Your task to perform on an android device: turn notification dots off Image 0: 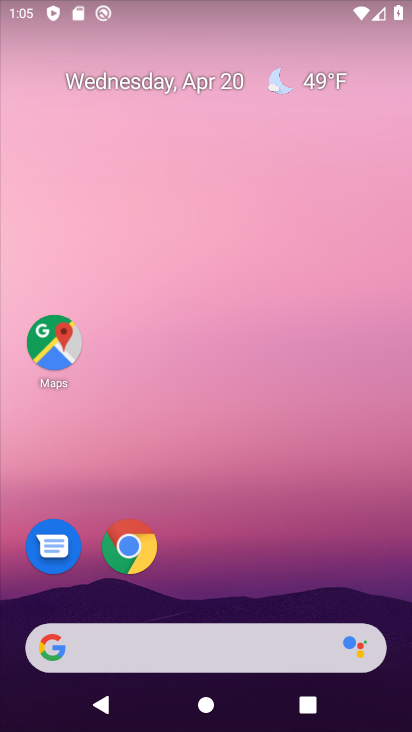
Step 0: drag from (224, 553) to (277, 110)
Your task to perform on an android device: turn notification dots off Image 1: 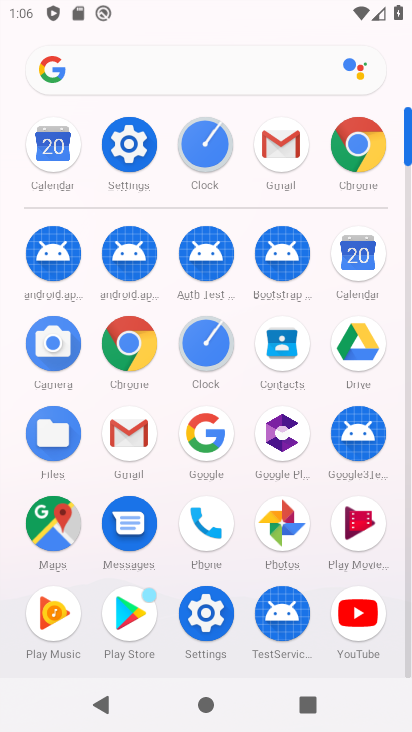
Step 1: click (133, 140)
Your task to perform on an android device: turn notification dots off Image 2: 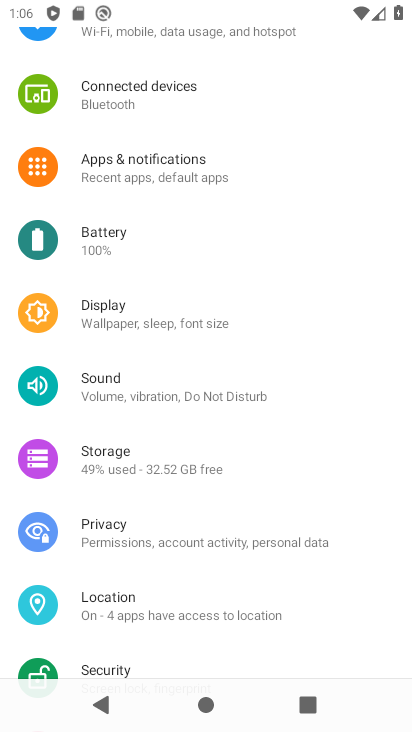
Step 2: click (226, 161)
Your task to perform on an android device: turn notification dots off Image 3: 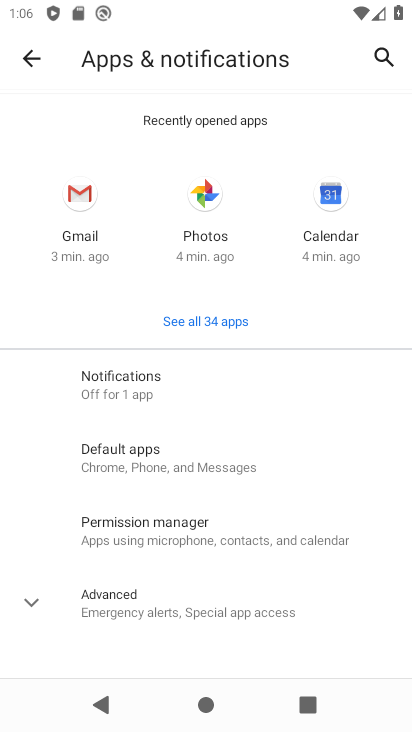
Step 3: click (130, 390)
Your task to perform on an android device: turn notification dots off Image 4: 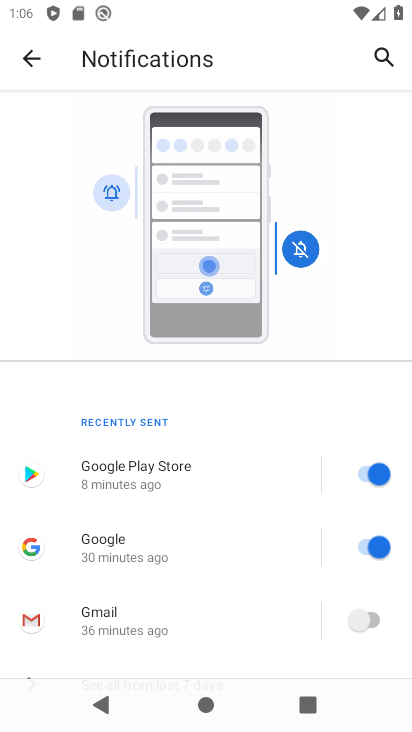
Step 4: drag from (159, 617) to (269, 138)
Your task to perform on an android device: turn notification dots off Image 5: 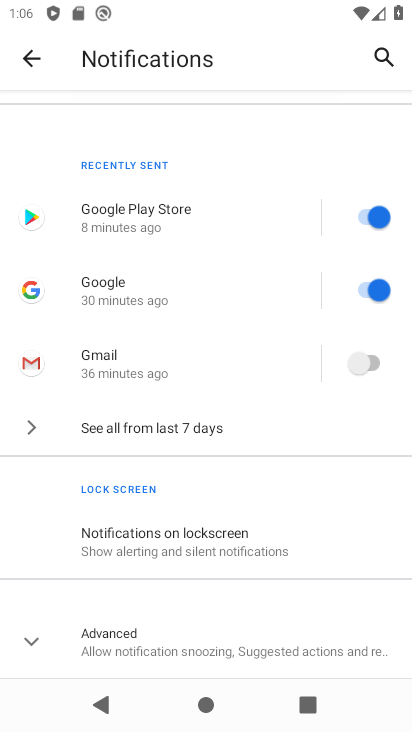
Step 5: click (167, 645)
Your task to perform on an android device: turn notification dots off Image 6: 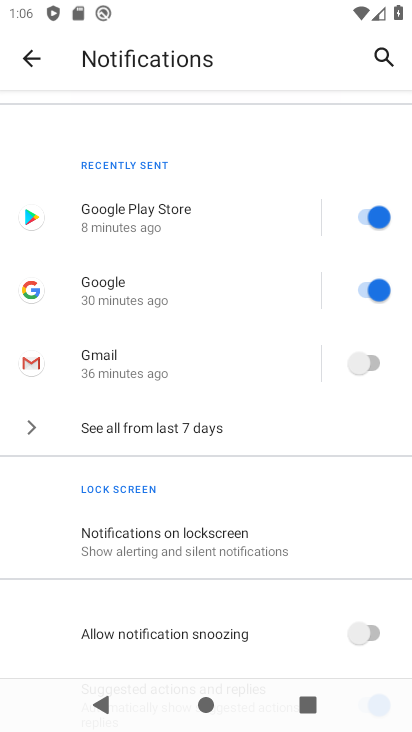
Step 6: drag from (177, 591) to (277, 98)
Your task to perform on an android device: turn notification dots off Image 7: 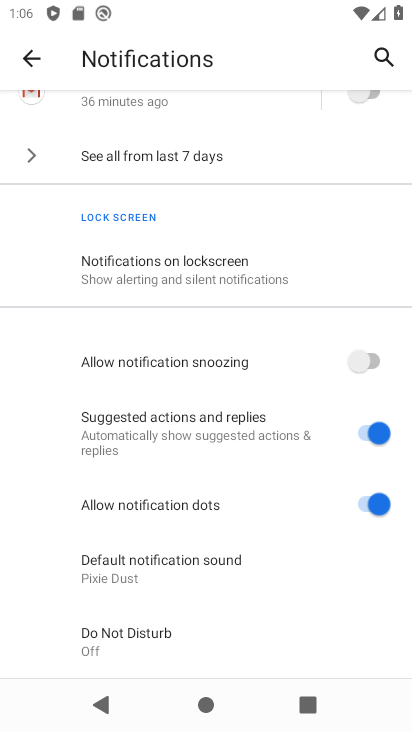
Step 7: click (366, 502)
Your task to perform on an android device: turn notification dots off Image 8: 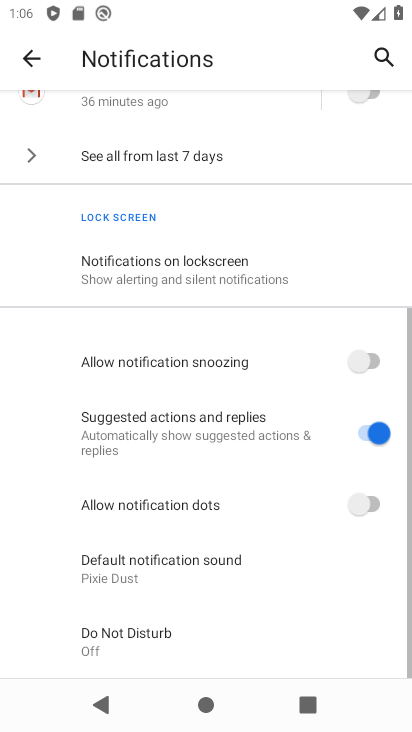
Step 8: task complete